Your task to perform on an android device: Go to Google maps Image 0: 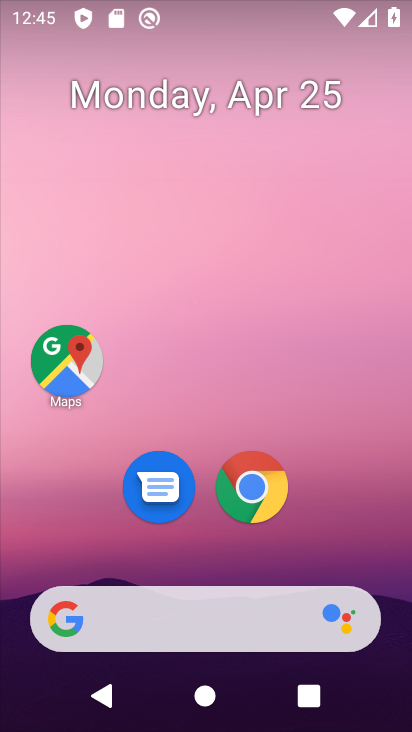
Step 0: drag from (258, 462) to (338, 2)
Your task to perform on an android device: Go to Google maps Image 1: 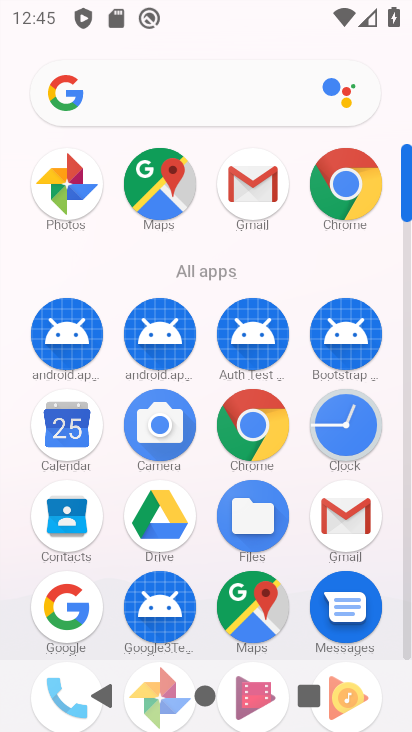
Step 1: click (254, 613)
Your task to perform on an android device: Go to Google maps Image 2: 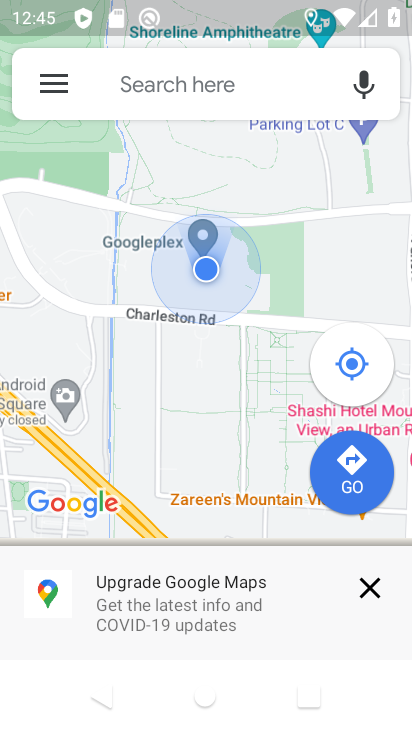
Step 2: click (364, 587)
Your task to perform on an android device: Go to Google maps Image 3: 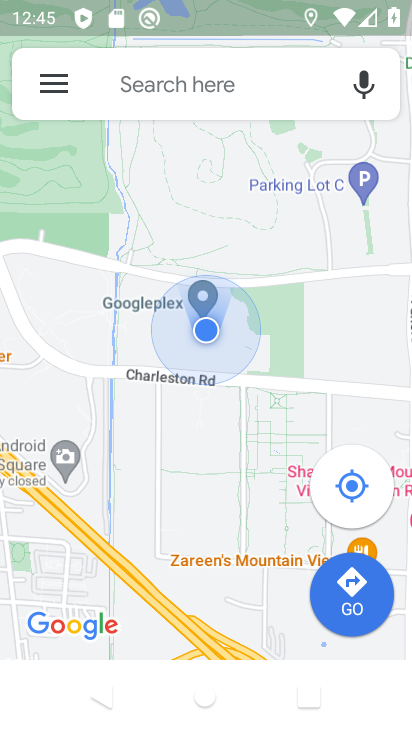
Step 3: task complete